Your task to perform on an android device: Go to wifi settings Image 0: 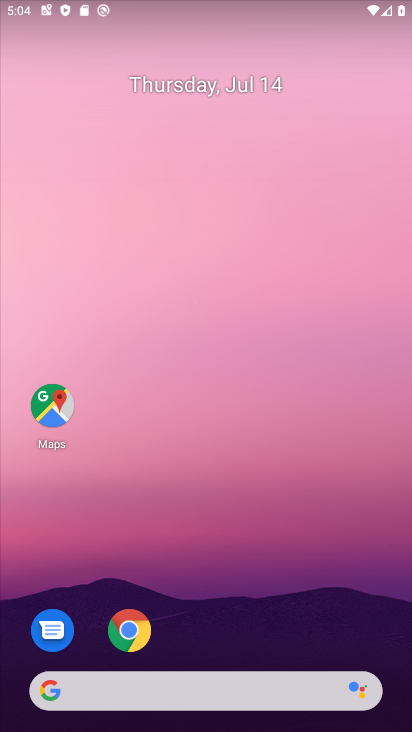
Step 0: drag from (232, 677) to (169, 106)
Your task to perform on an android device: Go to wifi settings Image 1: 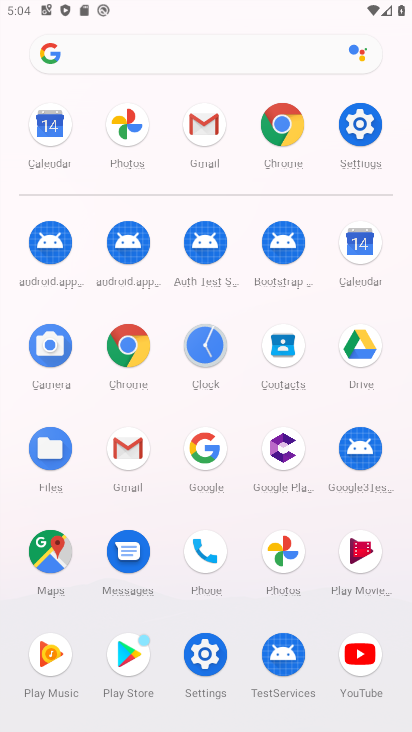
Step 1: click (350, 127)
Your task to perform on an android device: Go to wifi settings Image 2: 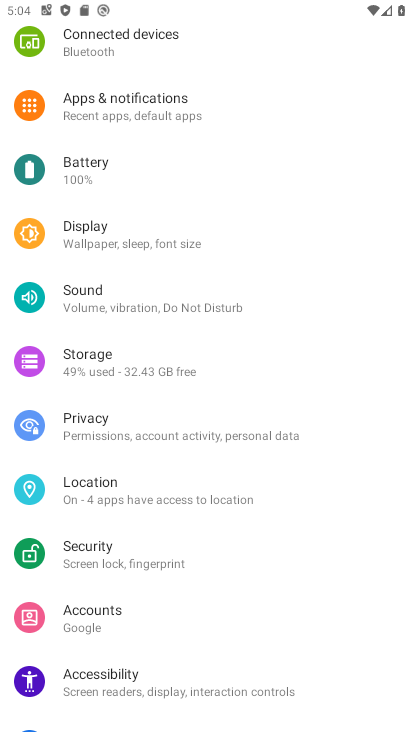
Step 2: drag from (215, 142) to (243, 587)
Your task to perform on an android device: Go to wifi settings Image 3: 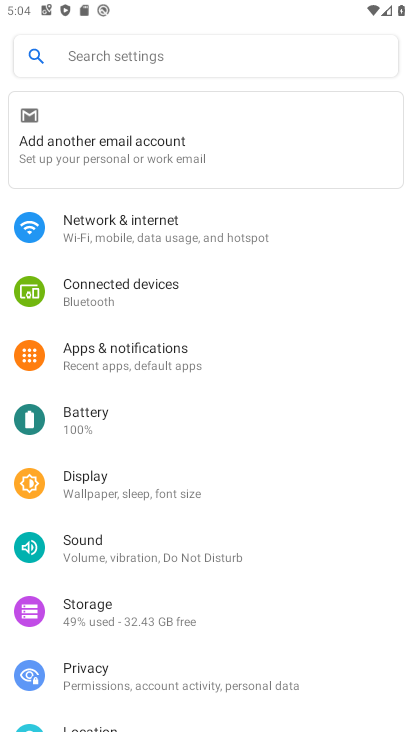
Step 3: click (173, 228)
Your task to perform on an android device: Go to wifi settings Image 4: 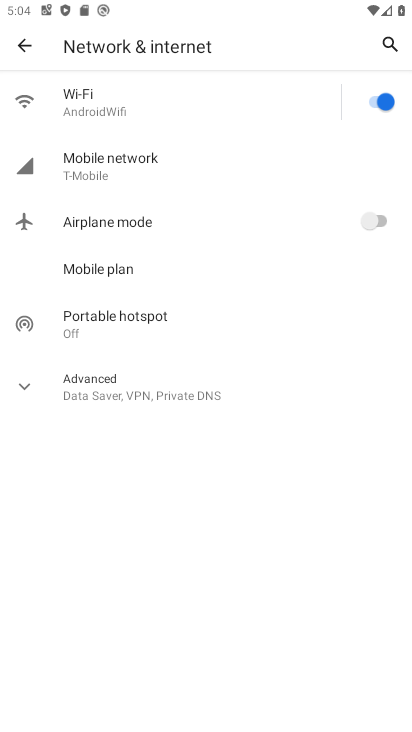
Step 4: click (186, 112)
Your task to perform on an android device: Go to wifi settings Image 5: 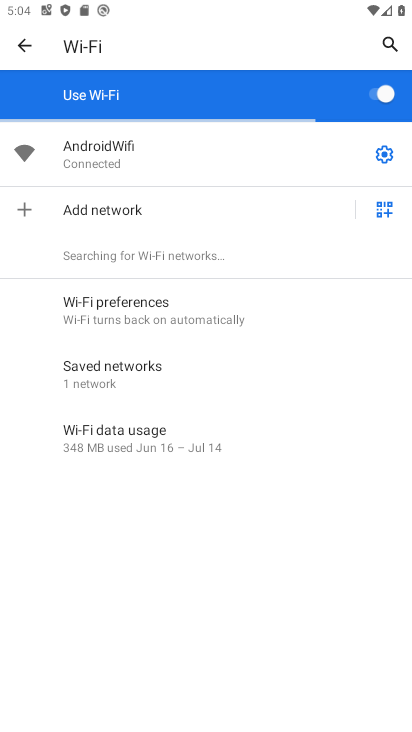
Step 5: task complete